Your task to perform on an android device: Go to Maps Image 0: 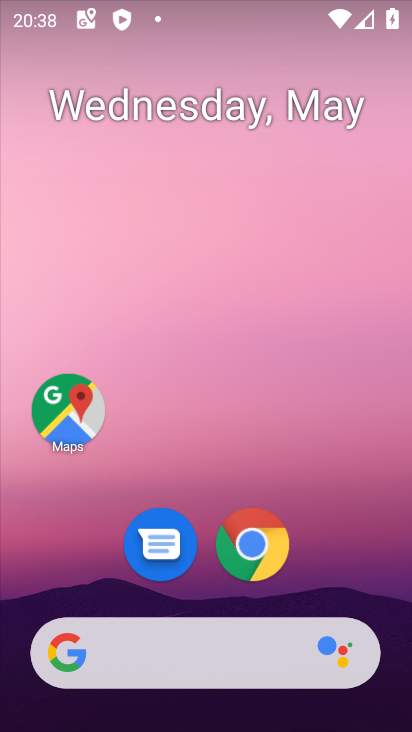
Step 0: click (91, 401)
Your task to perform on an android device: Go to Maps Image 1: 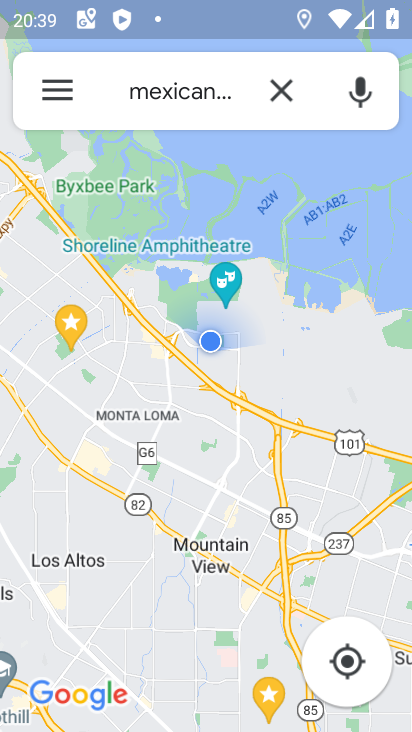
Step 1: task complete